Your task to perform on an android device: open app "Speedtest by Ookla" (install if not already installed) and go to login screen Image 0: 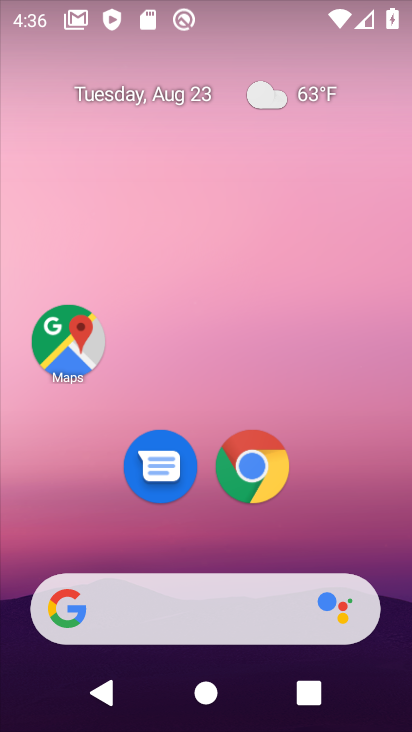
Step 0: drag from (203, 550) to (289, 8)
Your task to perform on an android device: open app "Speedtest by Ookla" (install if not already installed) and go to login screen Image 1: 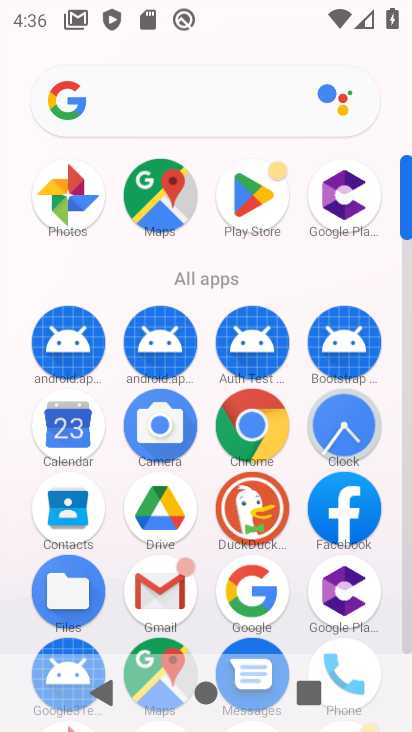
Step 1: click (260, 216)
Your task to perform on an android device: open app "Speedtest by Ookla" (install if not already installed) and go to login screen Image 2: 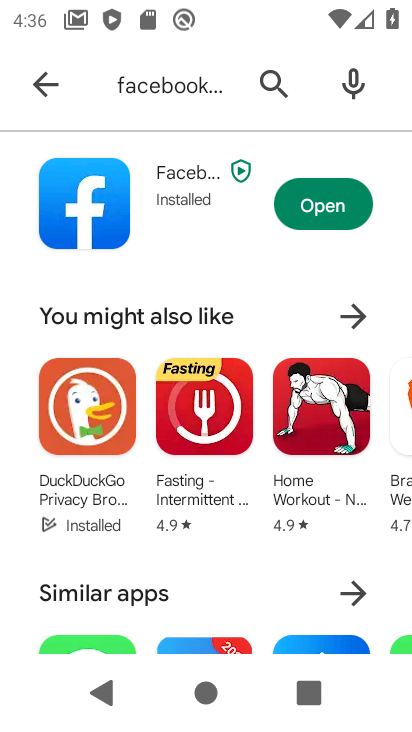
Step 2: click (182, 86)
Your task to perform on an android device: open app "Speedtest by Ookla" (install if not already installed) and go to login screen Image 3: 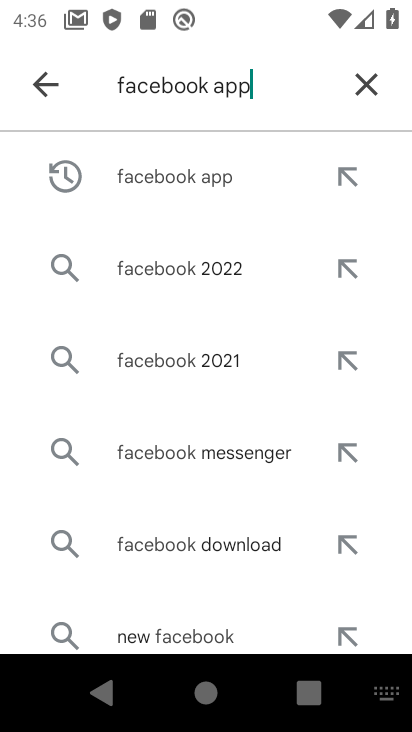
Step 3: click (374, 78)
Your task to perform on an android device: open app "Speedtest by Ookla" (install if not already installed) and go to login screen Image 4: 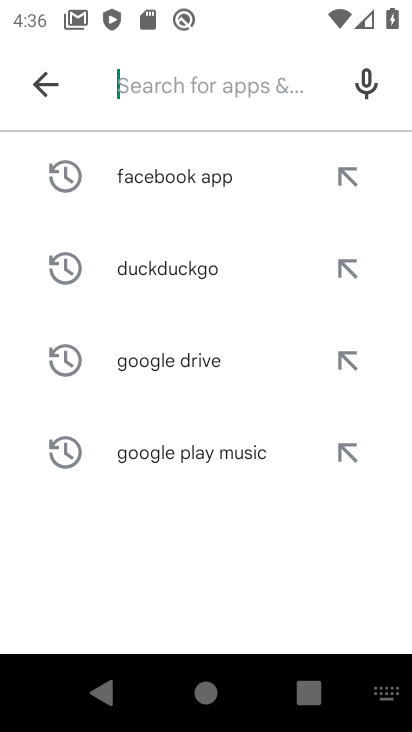
Step 4: type "speedtest by Ookla"
Your task to perform on an android device: open app "Speedtest by Ookla" (install if not already installed) and go to login screen Image 5: 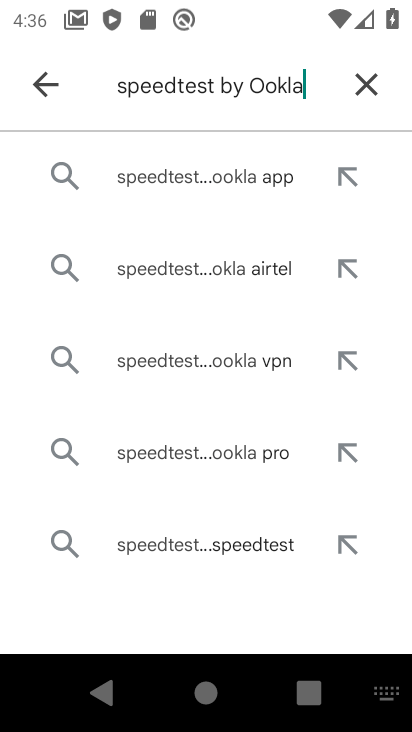
Step 5: click (143, 182)
Your task to perform on an android device: open app "Speedtest by Ookla" (install if not already installed) and go to login screen Image 6: 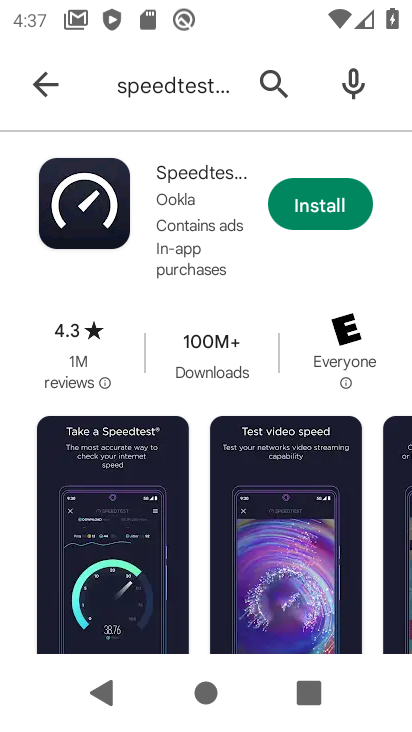
Step 6: click (318, 204)
Your task to perform on an android device: open app "Speedtest by Ookla" (install if not already installed) and go to login screen Image 7: 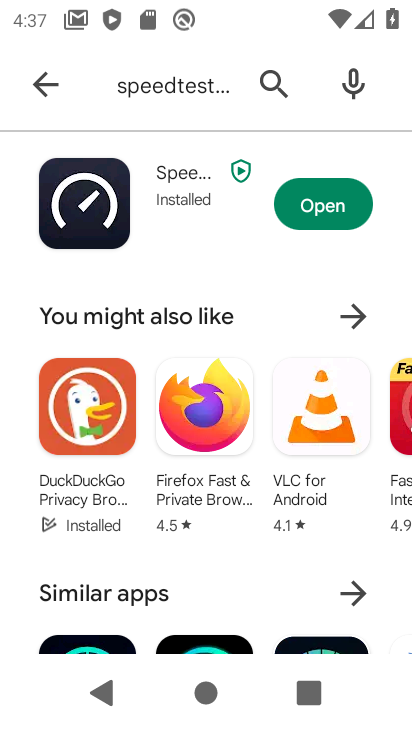
Step 7: click (337, 196)
Your task to perform on an android device: open app "Speedtest by Ookla" (install if not already installed) and go to login screen Image 8: 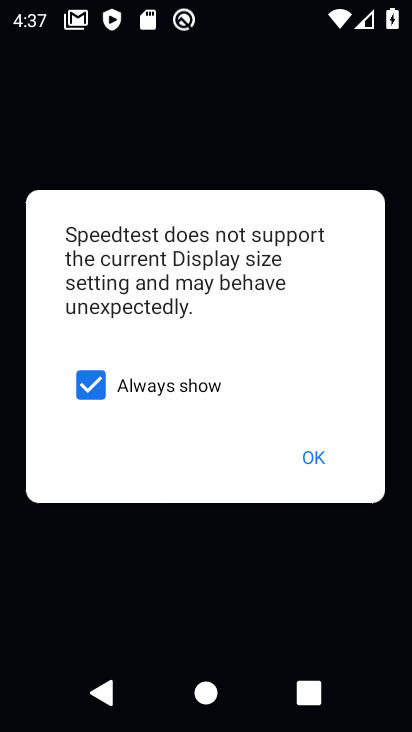
Step 8: click (317, 458)
Your task to perform on an android device: open app "Speedtest by Ookla" (install if not already installed) and go to login screen Image 9: 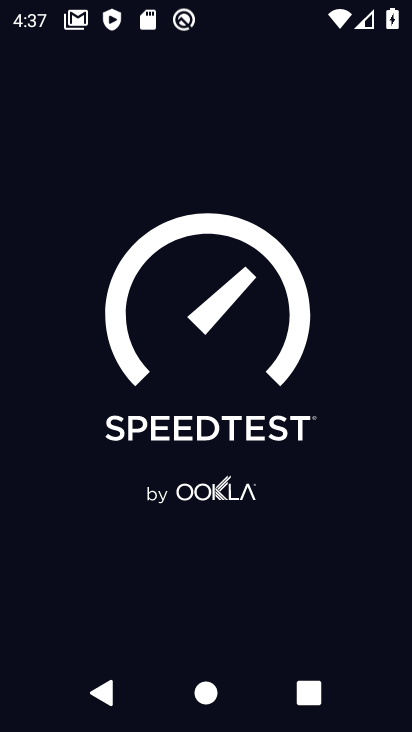
Step 9: click (315, 454)
Your task to perform on an android device: open app "Speedtest by Ookla" (install if not already installed) and go to login screen Image 10: 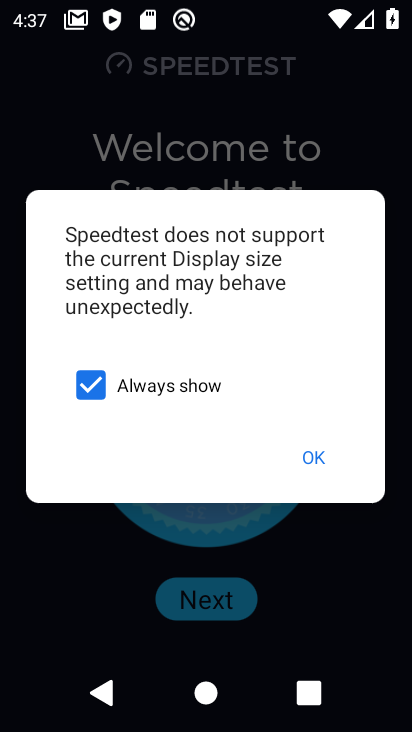
Step 10: click (218, 597)
Your task to perform on an android device: open app "Speedtest by Ookla" (install if not already installed) and go to login screen Image 11: 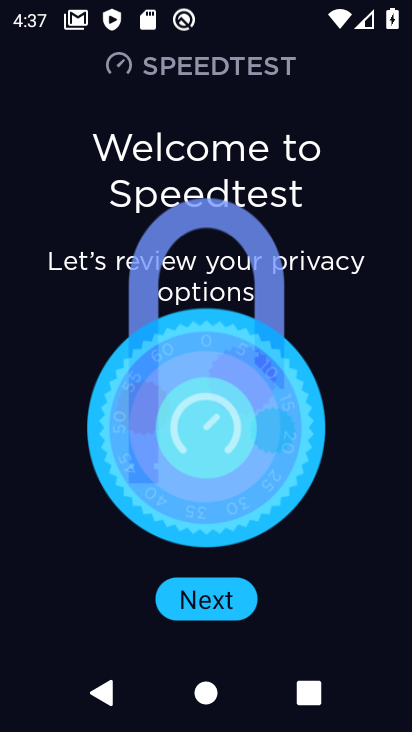
Step 11: click (314, 456)
Your task to perform on an android device: open app "Speedtest by Ookla" (install if not already installed) and go to login screen Image 12: 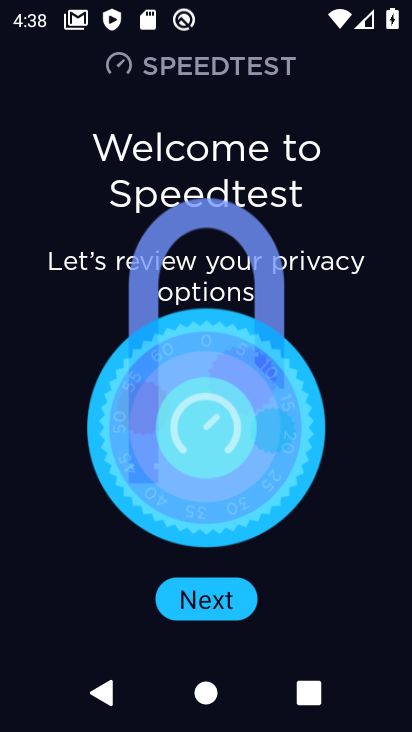
Step 12: task complete